Your task to perform on an android device: Open Google Maps Image 0: 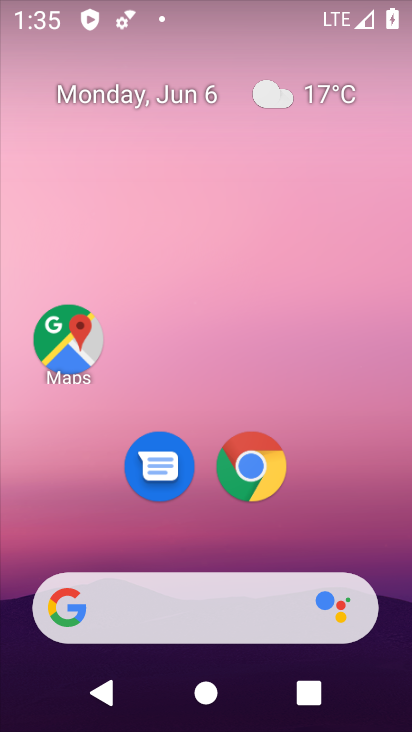
Step 0: press home button
Your task to perform on an android device: Open Google Maps Image 1: 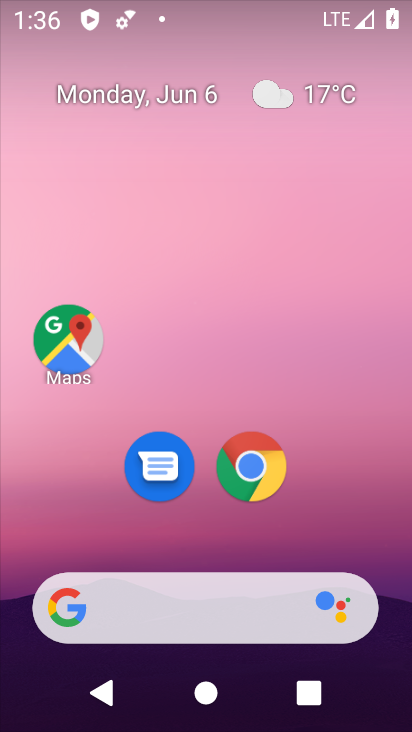
Step 1: click (66, 345)
Your task to perform on an android device: Open Google Maps Image 2: 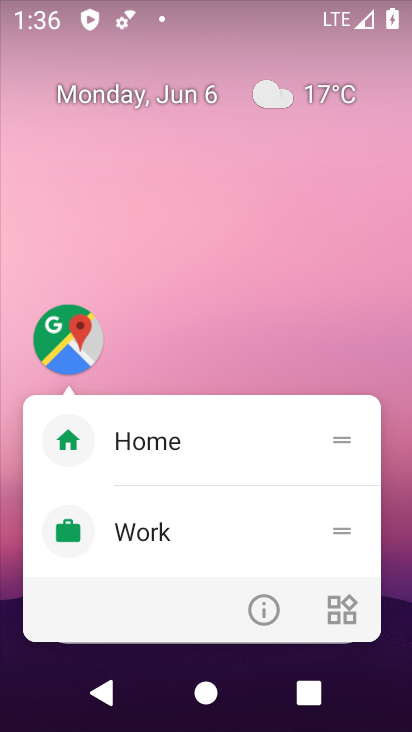
Step 2: click (68, 343)
Your task to perform on an android device: Open Google Maps Image 3: 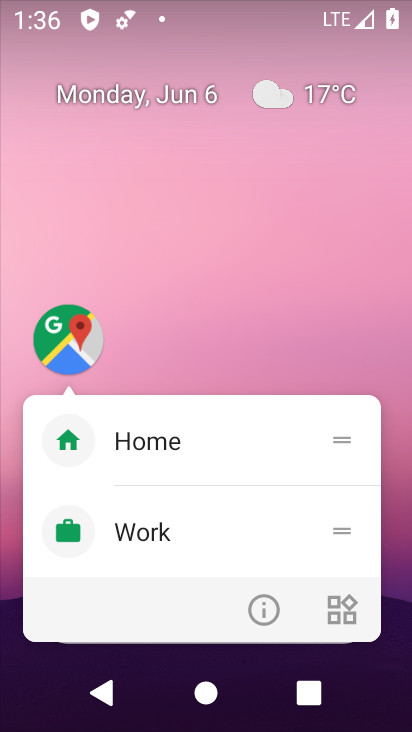
Step 3: click (220, 331)
Your task to perform on an android device: Open Google Maps Image 4: 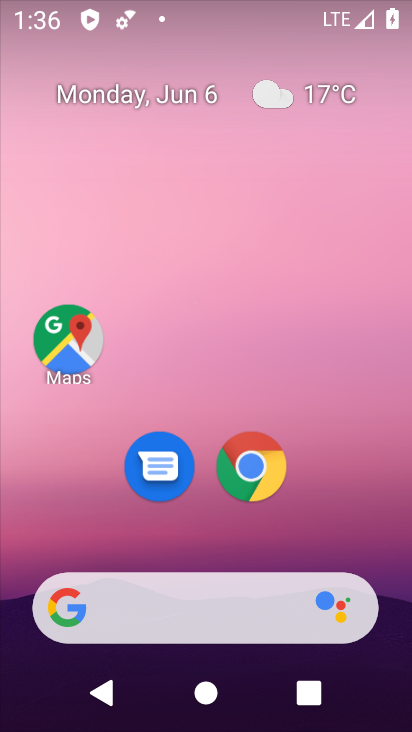
Step 4: drag from (225, 492) to (220, 113)
Your task to perform on an android device: Open Google Maps Image 5: 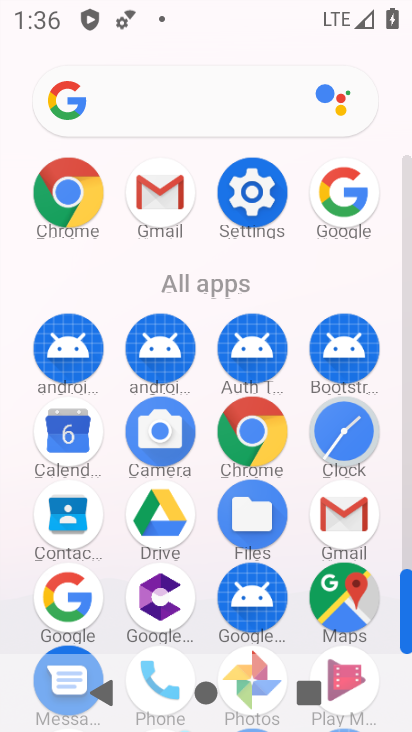
Step 5: click (341, 605)
Your task to perform on an android device: Open Google Maps Image 6: 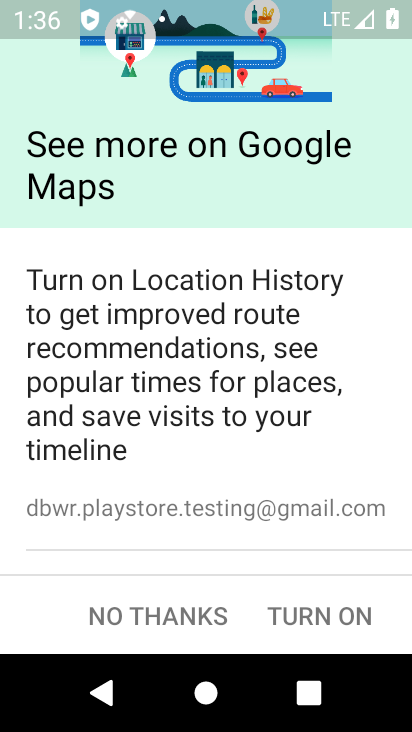
Step 6: click (325, 611)
Your task to perform on an android device: Open Google Maps Image 7: 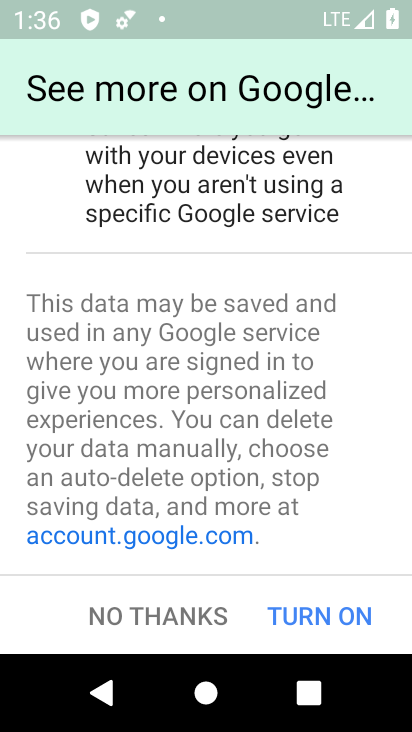
Step 7: click (325, 611)
Your task to perform on an android device: Open Google Maps Image 8: 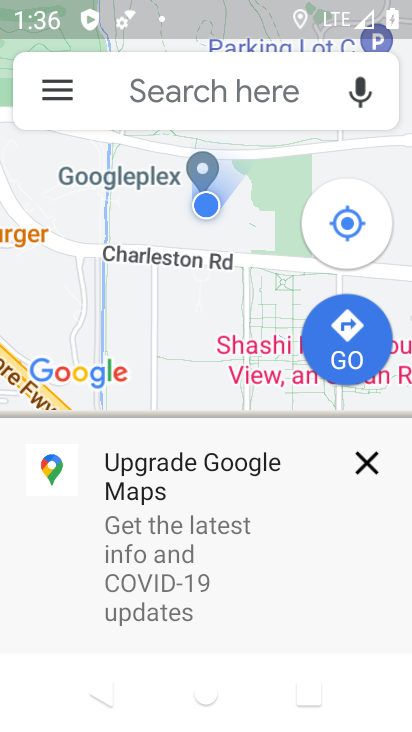
Step 8: click (366, 468)
Your task to perform on an android device: Open Google Maps Image 9: 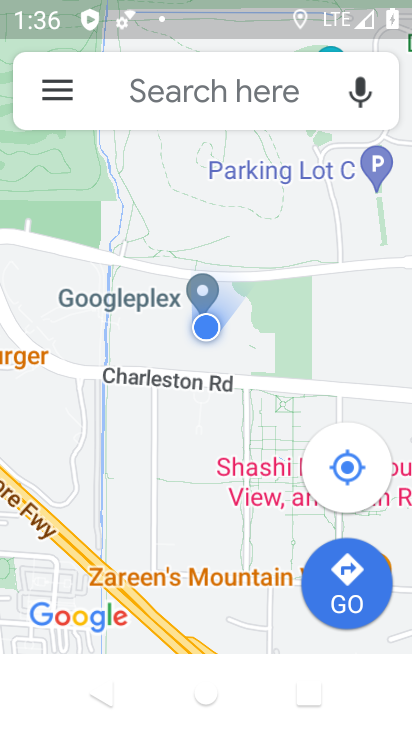
Step 9: task complete